Your task to perform on an android device: change the upload size in google photos Image 0: 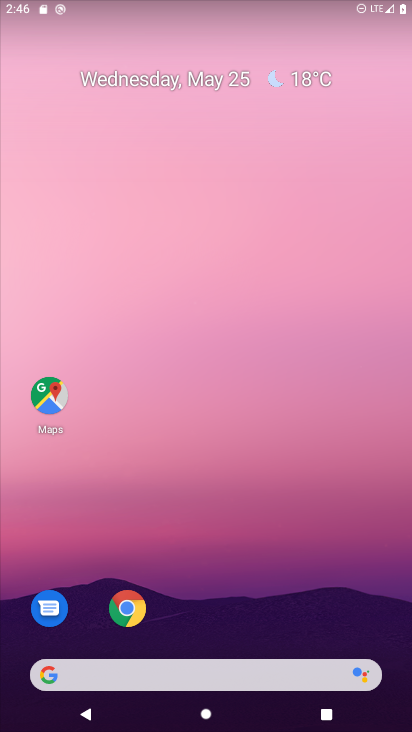
Step 0: drag from (388, 632) to (295, 135)
Your task to perform on an android device: change the upload size in google photos Image 1: 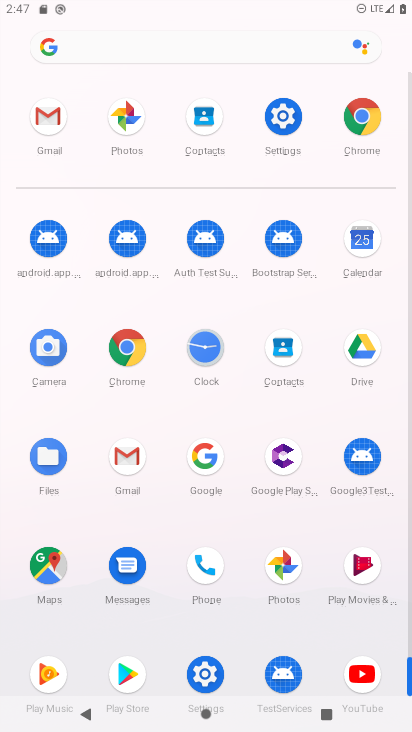
Step 1: click (283, 564)
Your task to perform on an android device: change the upload size in google photos Image 2: 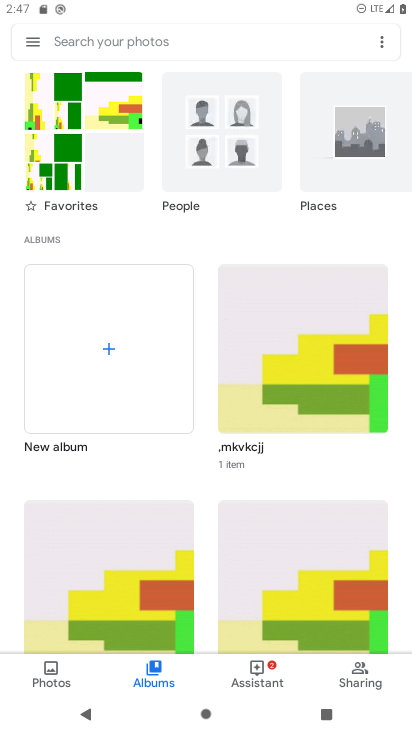
Step 2: click (28, 44)
Your task to perform on an android device: change the upload size in google photos Image 3: 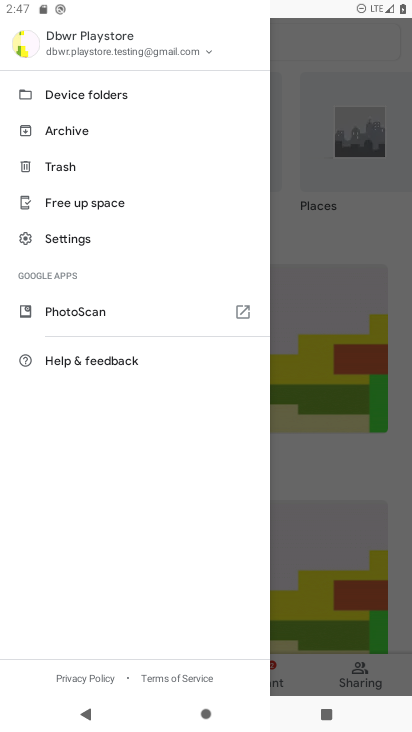
Step 3: click (61, 242)
Your task to perform on an android device: change the upload size in google photos Image 4: 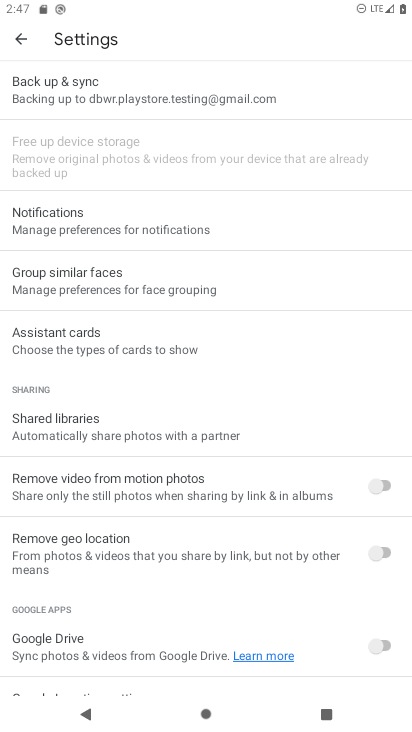
Step 4: click (83, 88)
Your task to perform on an android device: change the upload size in google photos Image 5: 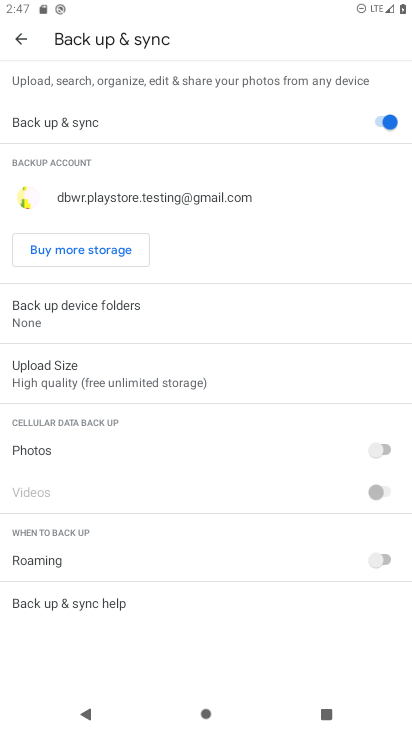
Step 5: click (87, 377)
Your task to perform on an android device: change the upload size in google photos Image 6: 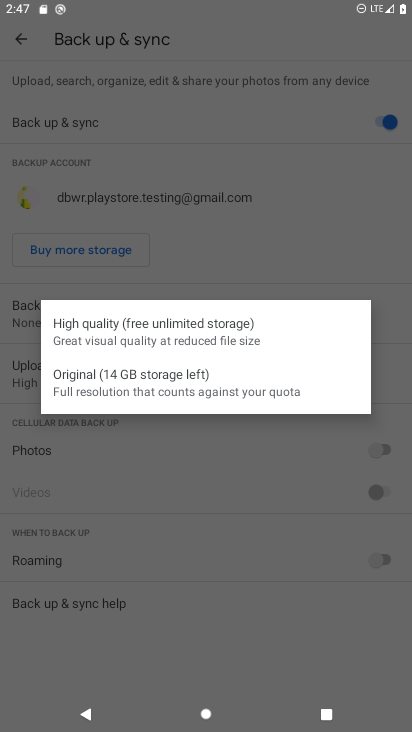
Step 6: click (131, 383)
Your task to perform on an android device: change the upload size in google photos Image 7: 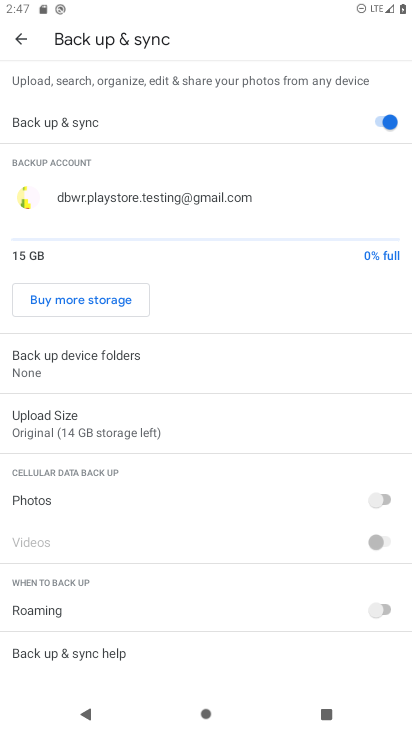
Step 7: task complete